Your task to perform on an android device: Open battery settings Image 0: 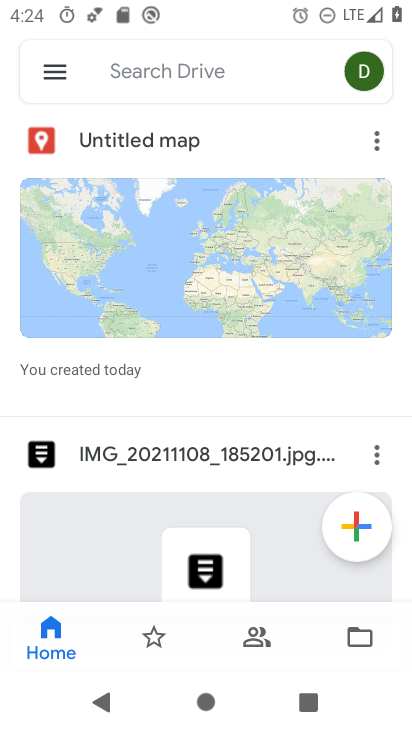
Step 0: press home button
Your task to perform on an android device: Open battery settings Image 1: 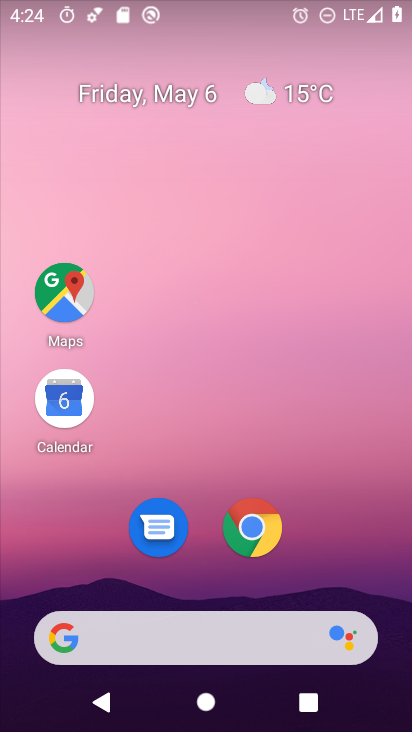
Step 1: drag from (344, 557) to (312, 119)
Your task to perform on an android device: Open battery settings Image 2: 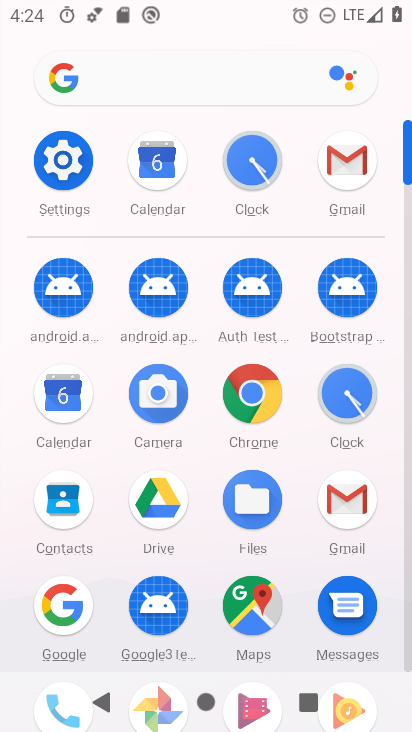
Step 2: click (75, 156)
Your task to perform on an android device: Open battery settings Image 3: 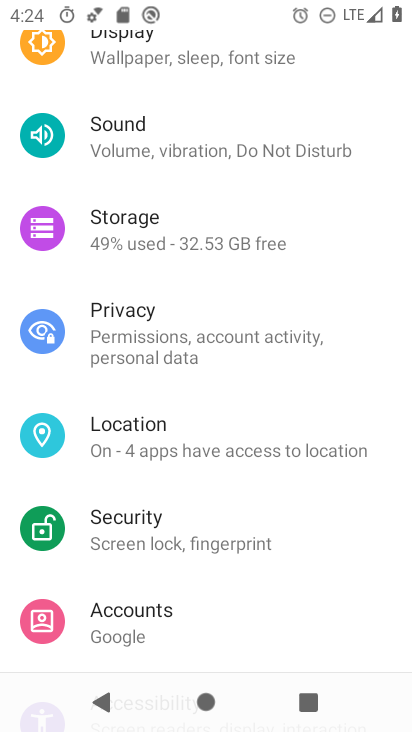
Step 3: drag from (251, 571) to (309, 144)
Your task to perform on an android device: Open battery settings Image 4: 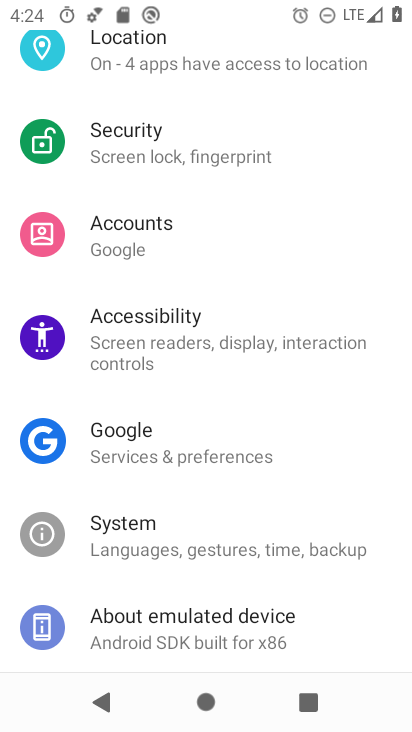
Step 4: drag from (267, 163) to (270, 537)
Your task to perform on an android device: Open battery settings Image 5: 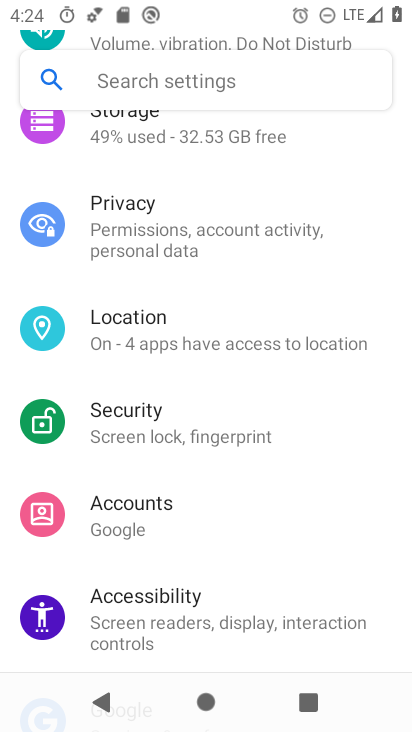
Step 5: drag from (251, 177) to (270, 525)
Your task to perform on an android device: Open battery settings Image 6: 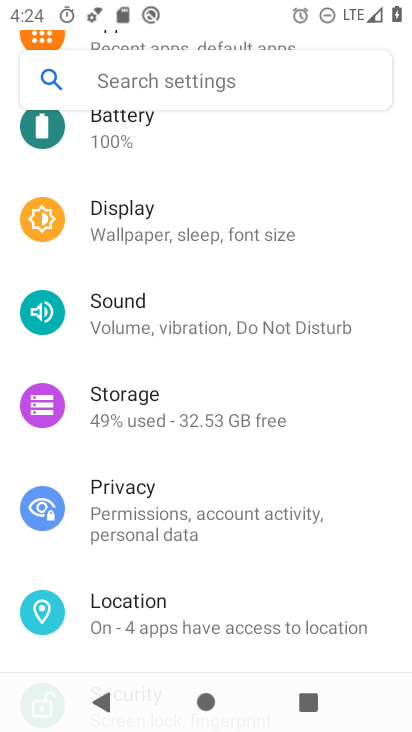
Step 6: drag from (223, 226) to (238, 527)
Your task to perform on an android device: Open battery settings Image 7: 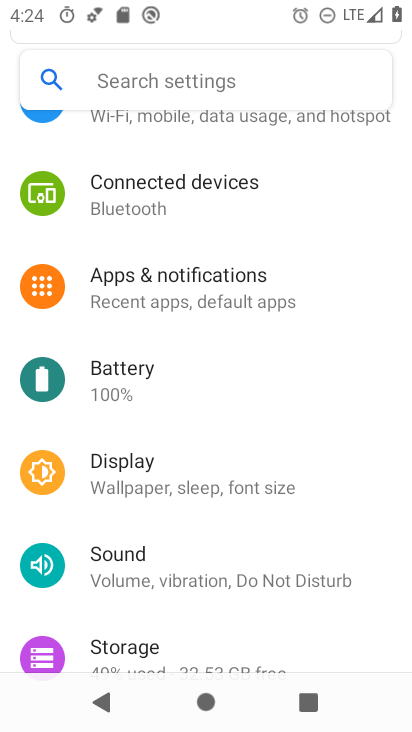
Step 7: click (133, 381)
Your task to perform on an android device: Open battery settings Image 8: 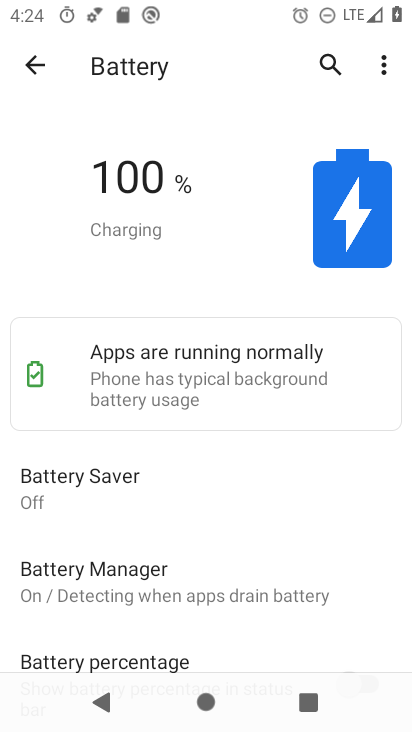
Step 8: task complete